Your task to perform on an android device: install app "WhatsApp Messenger" Image 0: 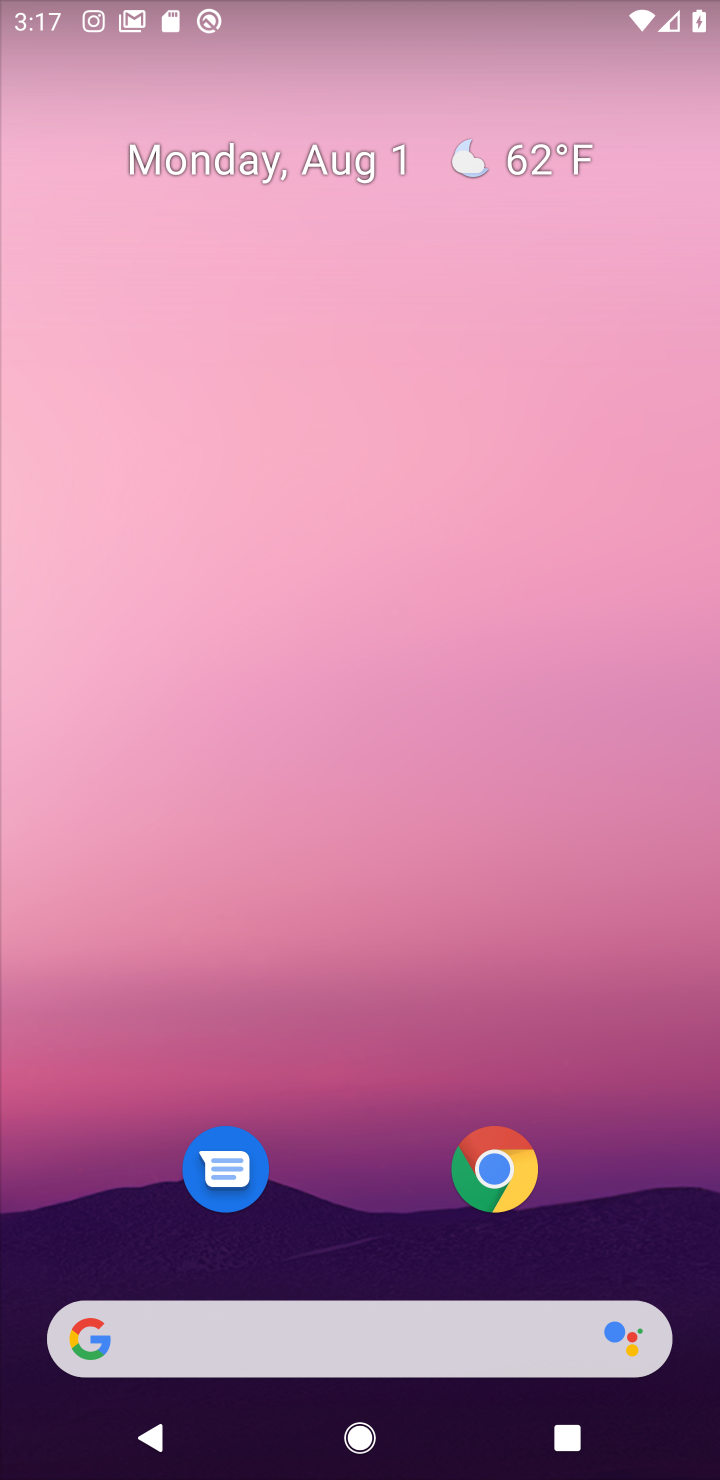
Step 0: press home button
Your task to perform on an android device: install app "WhatsApp Messenger" Image 1: 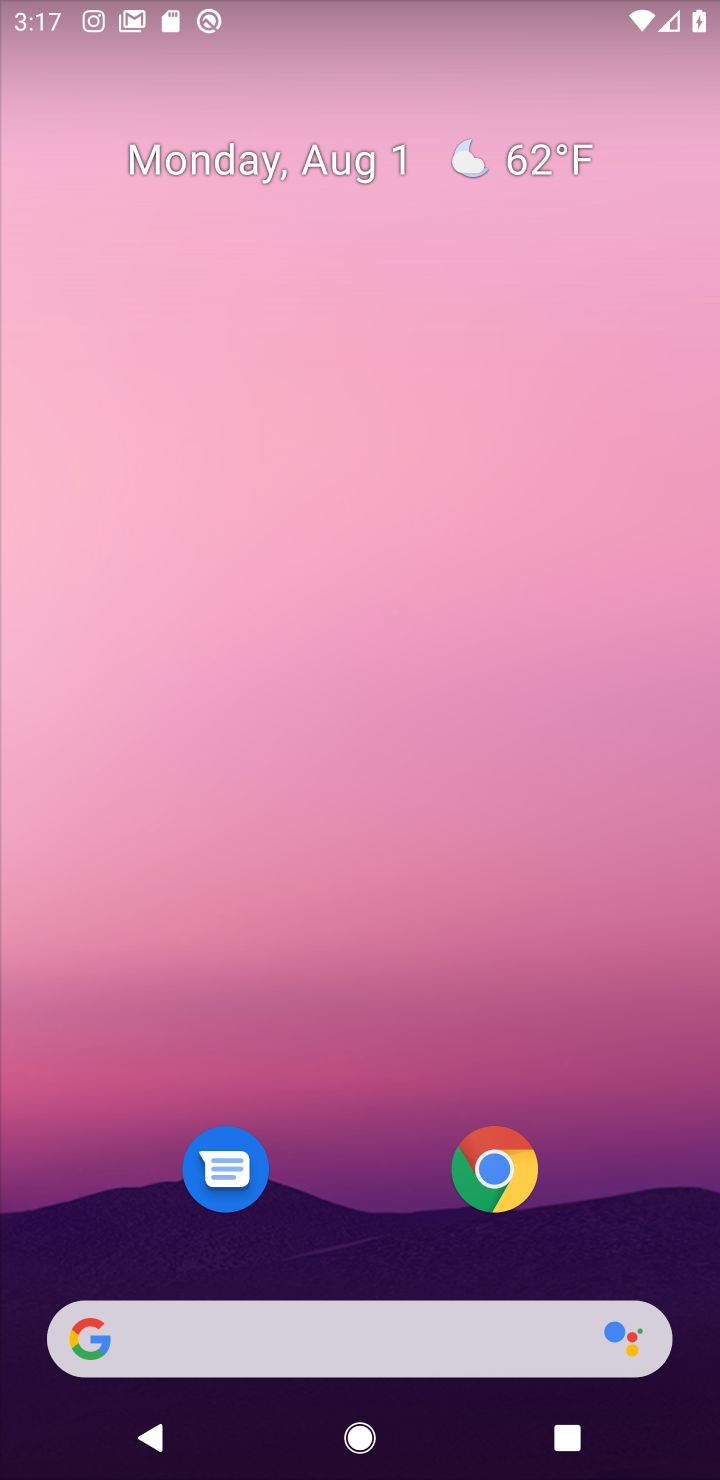
Step 1: drag from (331, 1168) to (303, 323)
Your task to perform on an android device: install app "WhatsApp Messenger" Image 2: 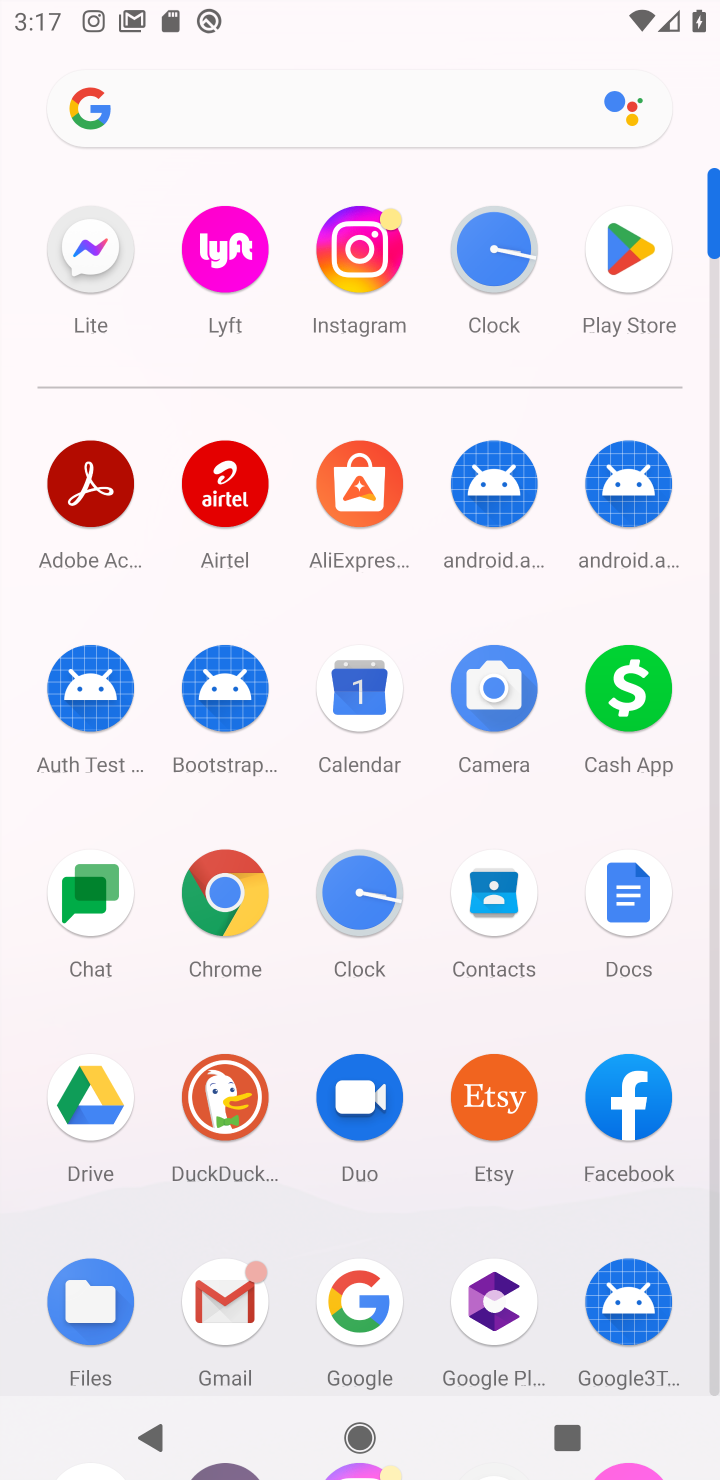
Step 2: click (618, 315)
Your task to perform on an android device: install app "WhatsApp Messenger" Image 3: 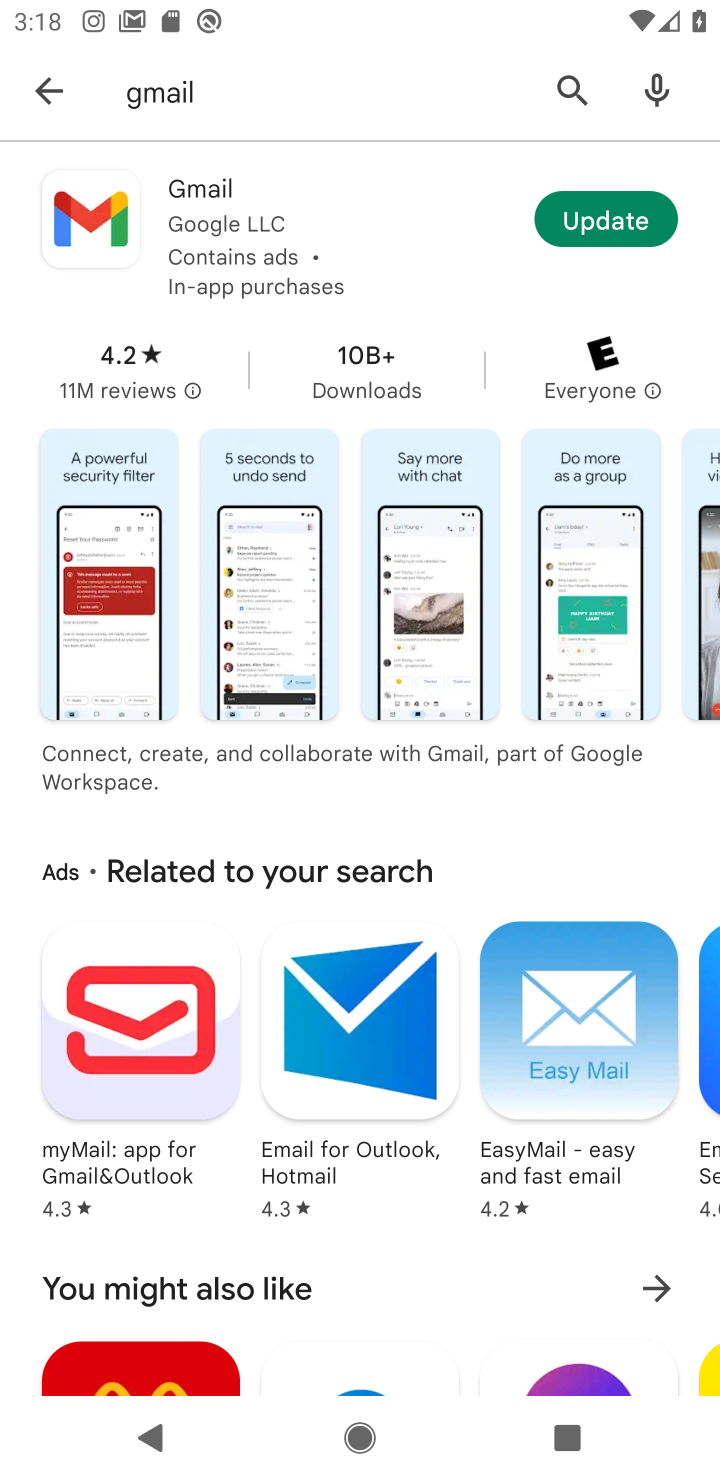
Step 3: click (24, 75)
Your task to perform on an android device: install app "WhatsApp Messenger" Image 4: 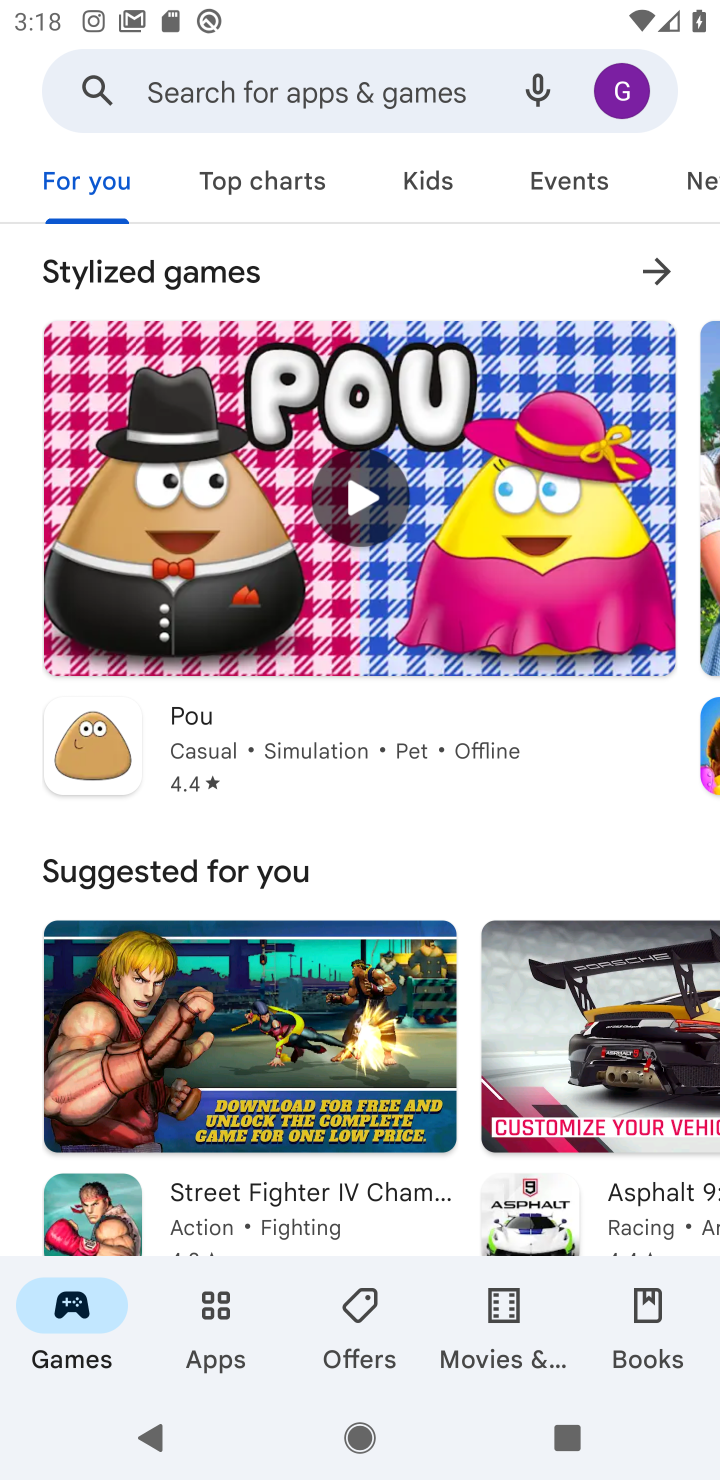
Step 4: click (362, 102)
Your task to perform on an android device: install app "WhatsApp Messenger" Image 5: 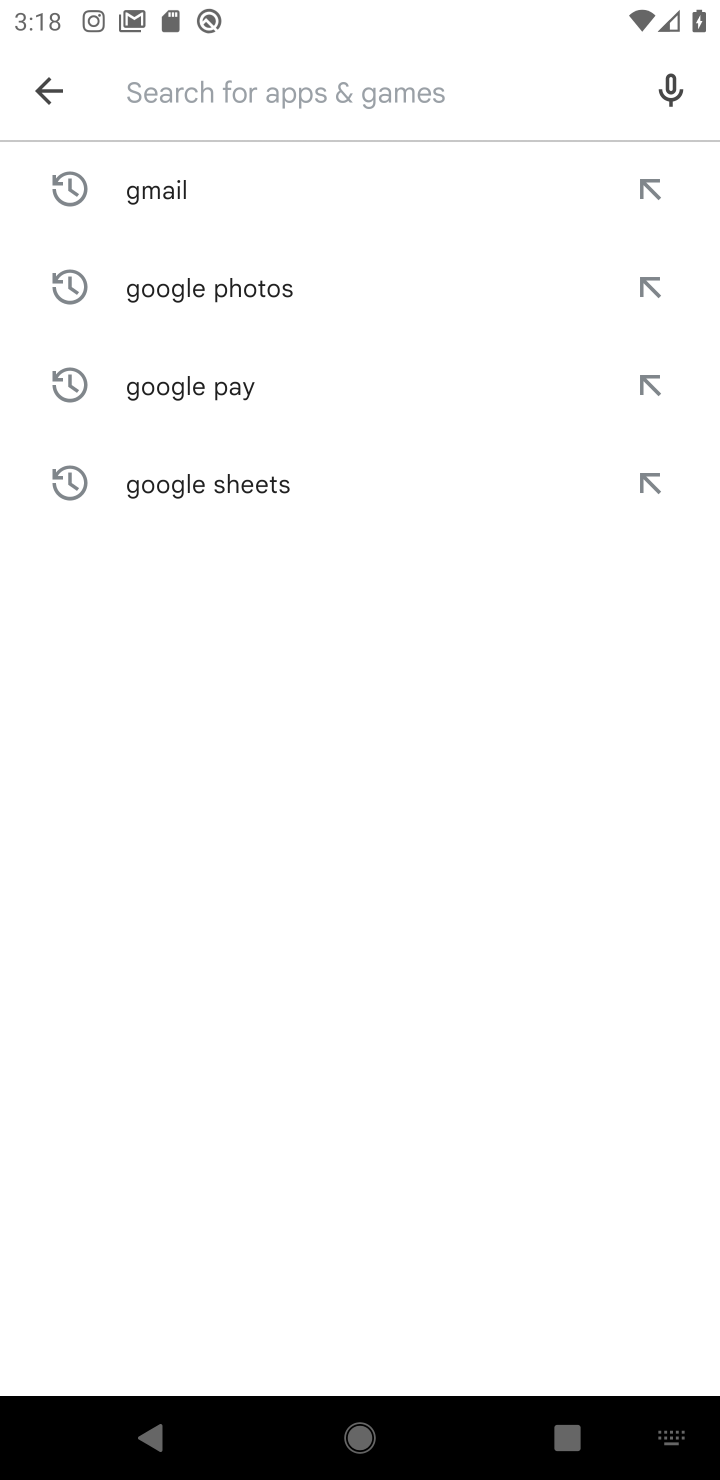
Step 5: type "Whatsapp messenger"
Your task to perform on an android device: install app "WhatsApp Messenger" Image 6: 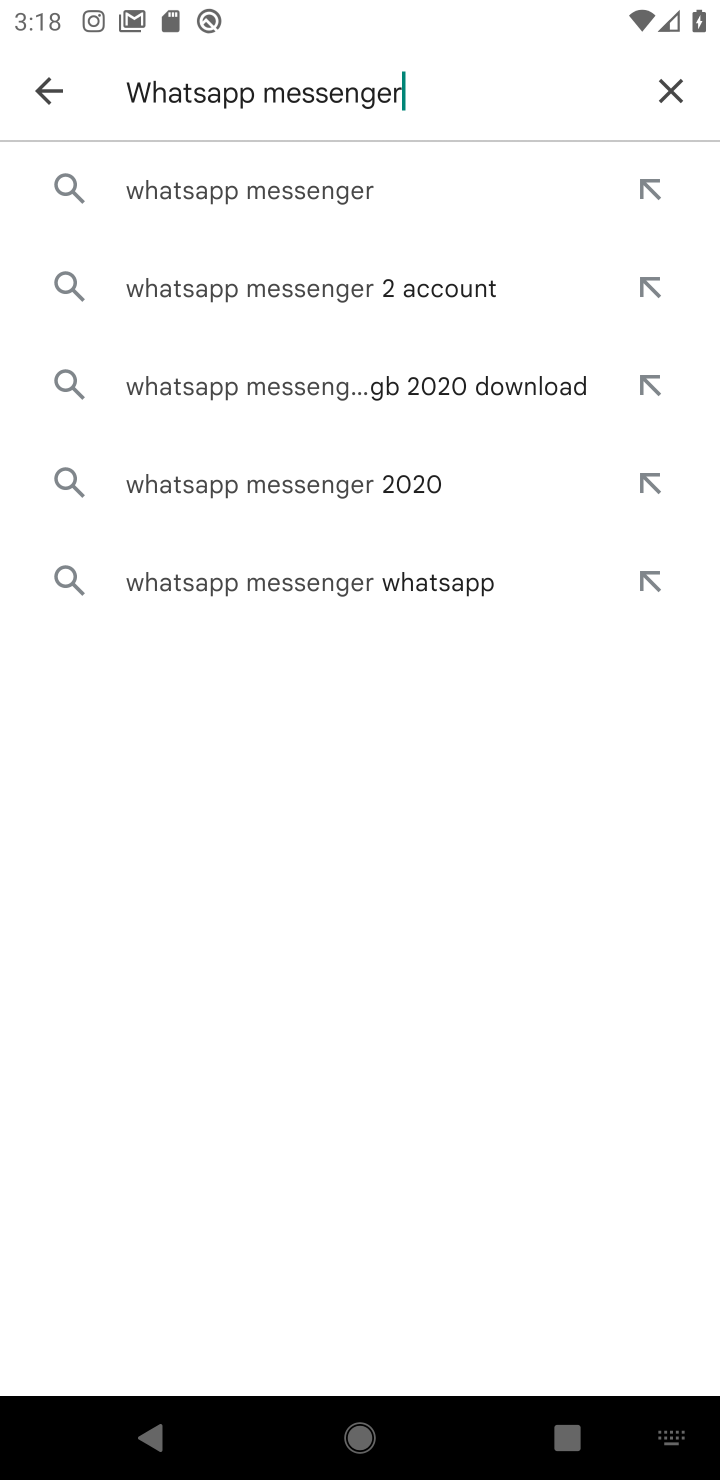
Step 6: click (250, 203)
Your task to perform on an android device: install app "WhatsApp Messenger" Image 7: 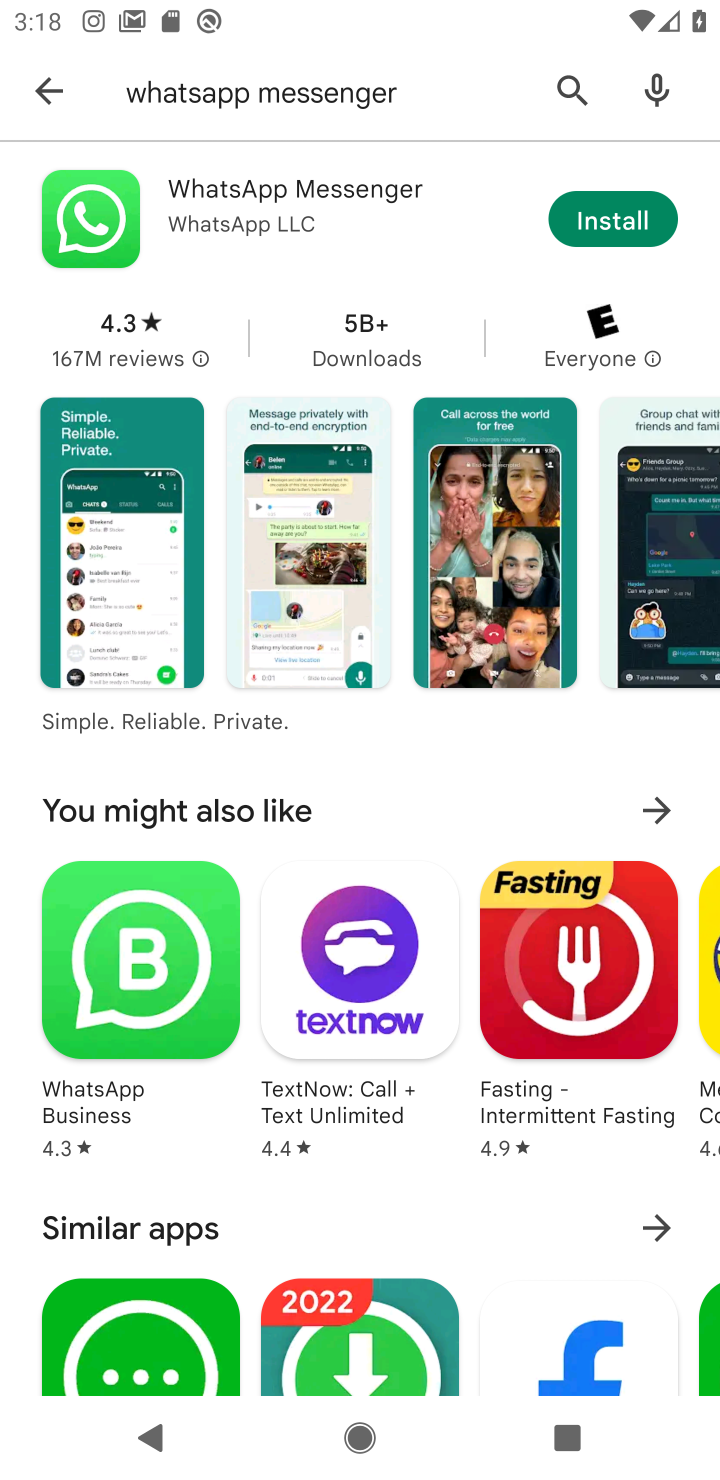
Step 7: click (604, 241)
Your task to perform on an android device: install app "WhatsApp Messenger" Image 8: 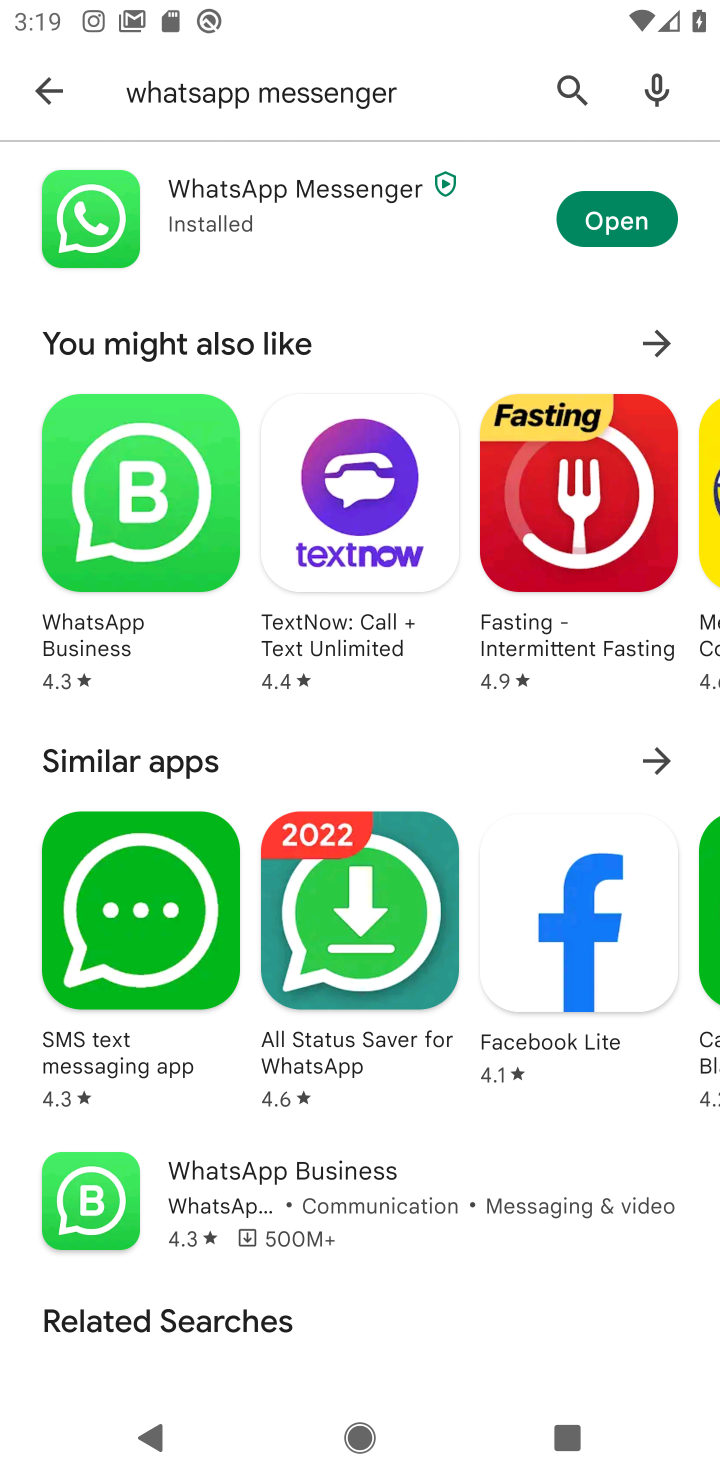
Step 8: task complete